Your task to perform on an android device: Open calendar and show me the third week of next month Image 0: 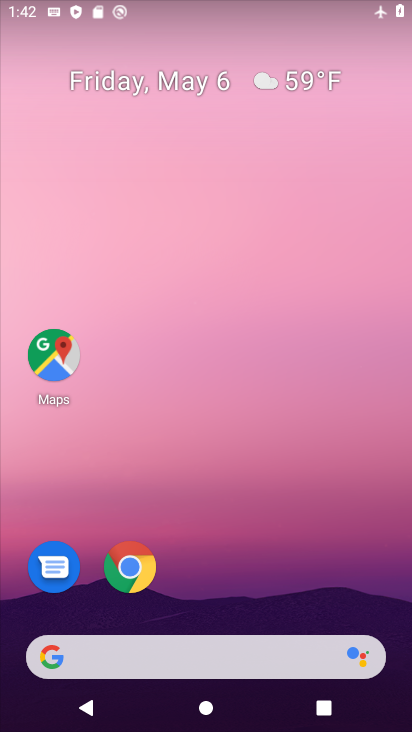
Step 0: drag from (212, 567) to (216, 66)
Your task to perform on an android device: Open calendar and show me the third week of next month Image 1: 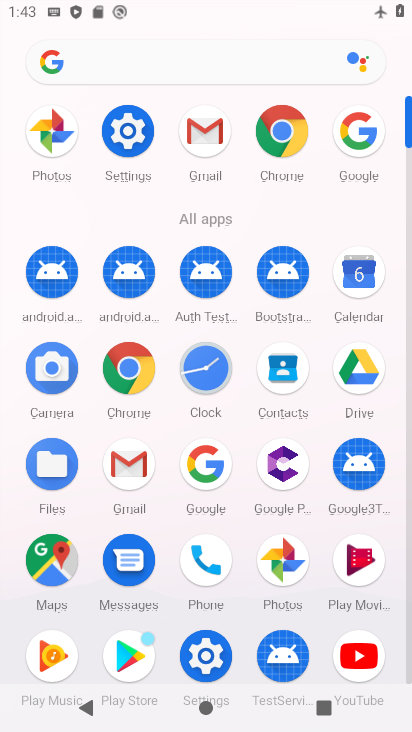
Step 1: click (362, 270)
Your task to perform on an android device: Open calendar and show me the third week of next month Image 2: 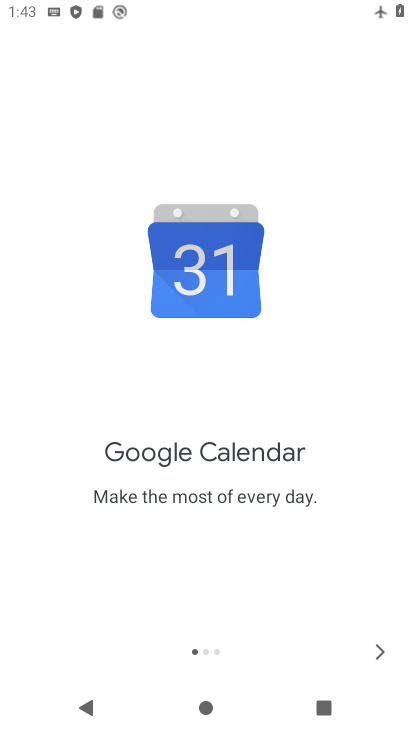
Step 2: click (380, 647)
Your task to perform on an android device: Open calendar and show me the third week of next month Image 3: 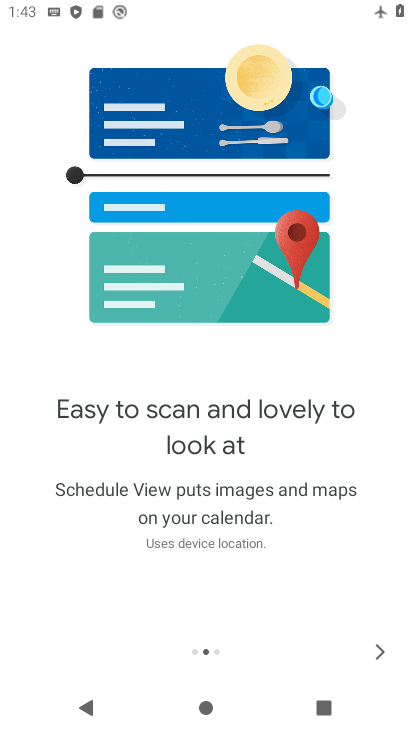
Step 3: click (380, 647)
Your task to perform on an android device: Open calendar and show me the third week of next month Image 4: 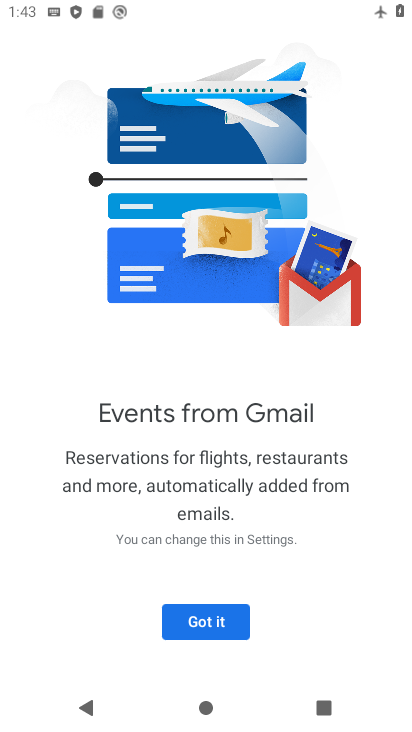
Step 4: click (191, 627)
Your task to perform on an android device: Open calendar and show me the third week of next month Image 5: 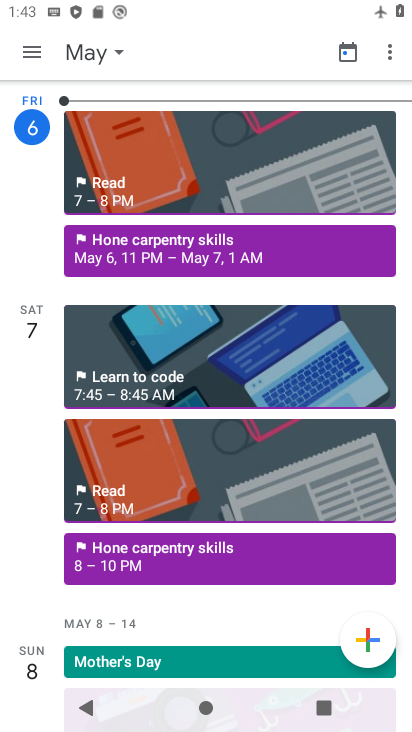
Step 5: click (122, 52)
Your task to perform on an android device: Open calendar and show me the third week of next month Image 6: 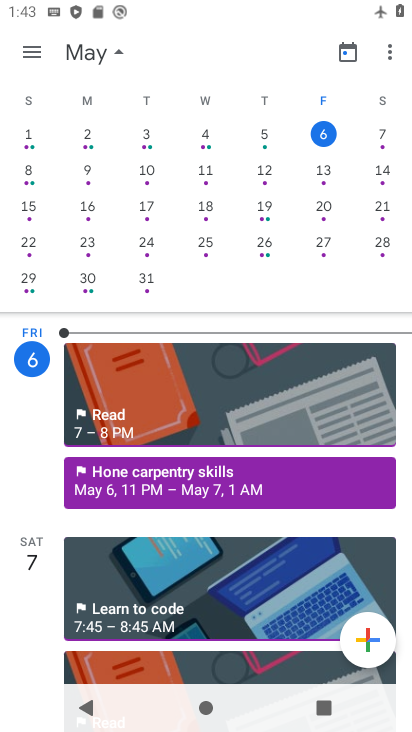
Step 6: drag from (351, 195) to (84, 209)
Your task to perform on an android device: Open calendar and show me the third week of next month Image 7: 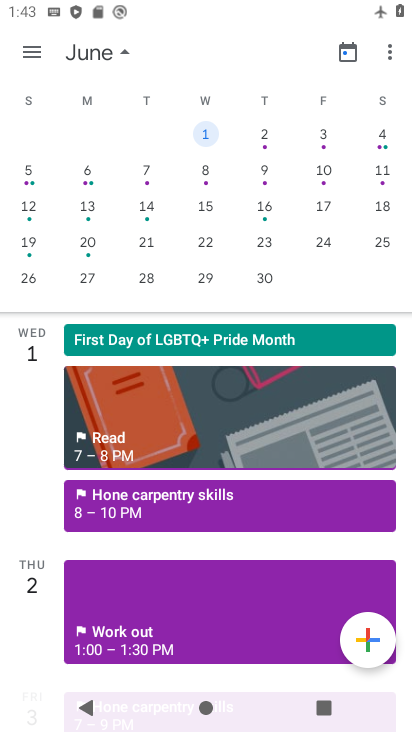
Step 7: click (203, 241)
Your task to perform on an android device: Open calendar and show me the third week of next month Image 8: 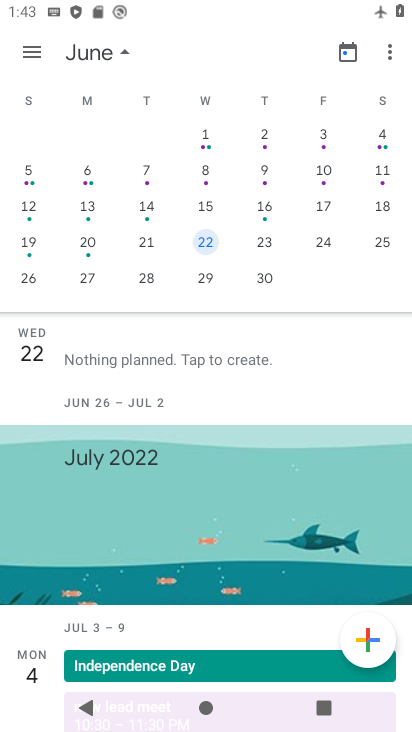
Step 8: click (24, 48)
Your task to perform on an android device: Open calendar and show me the third week of next month Image 9: 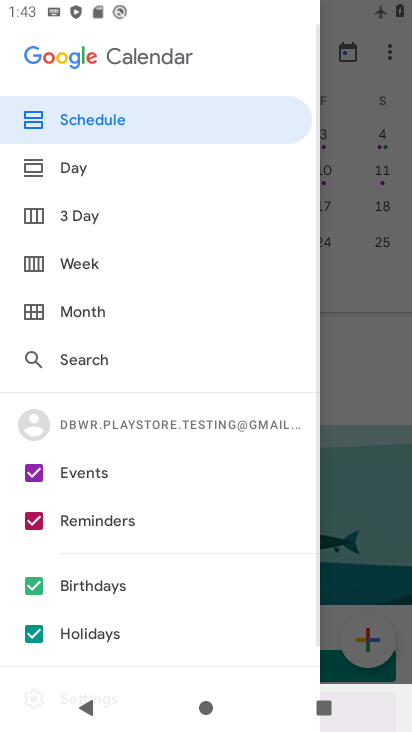
Step 9: click (66, 265)
Your task to perform on an android device: Open calendar and show me the third week of next month Image 10: 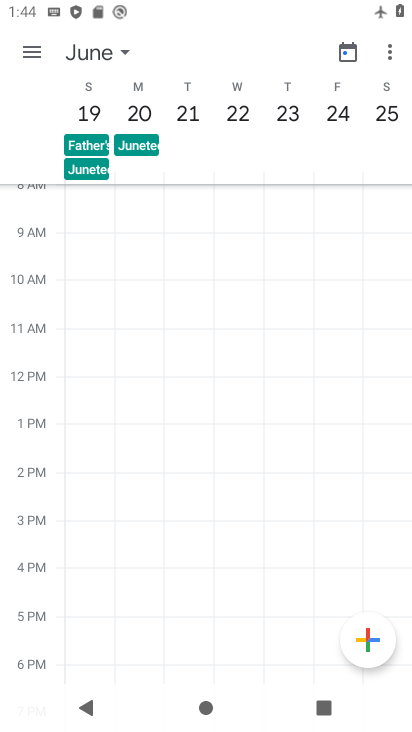
Step 10: task complete